Your task to perform on an android device: change the clock display to analog Image 0: 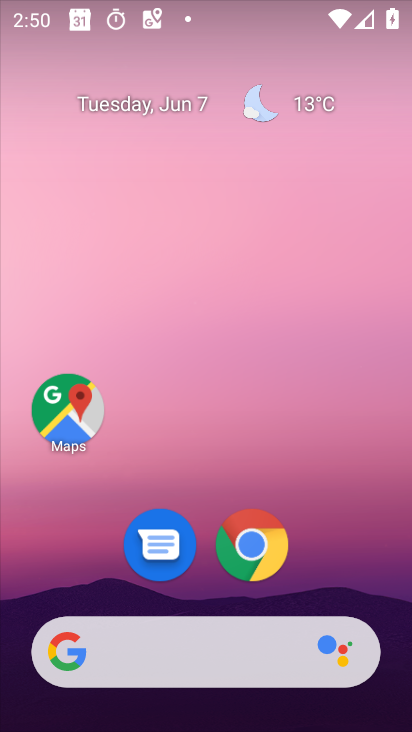
Step 0: drag from (336, 550) to (275, 12)
Your task to perform on an android device: change the clock display to analog Image 1: 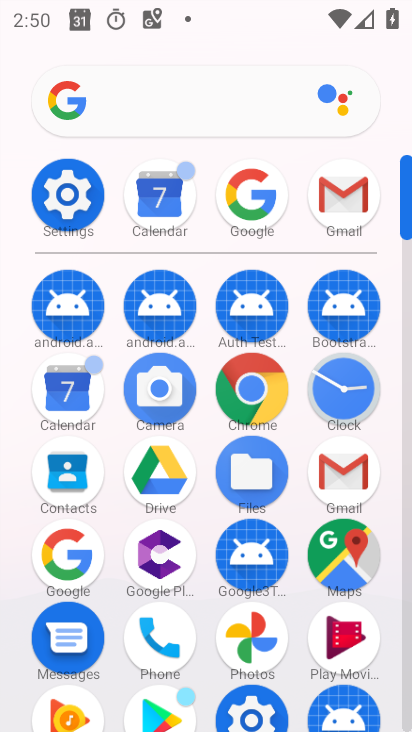
Step 1: click (351, 404)
Your task to perform on an android device: change the clock display to analog Image 2: 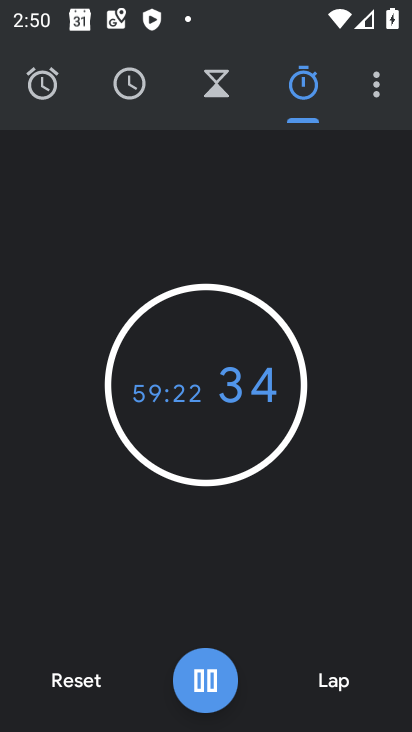
Step 2: click (376, 94)
Your task to perform on an android device: change the clock display to analog Image 3: 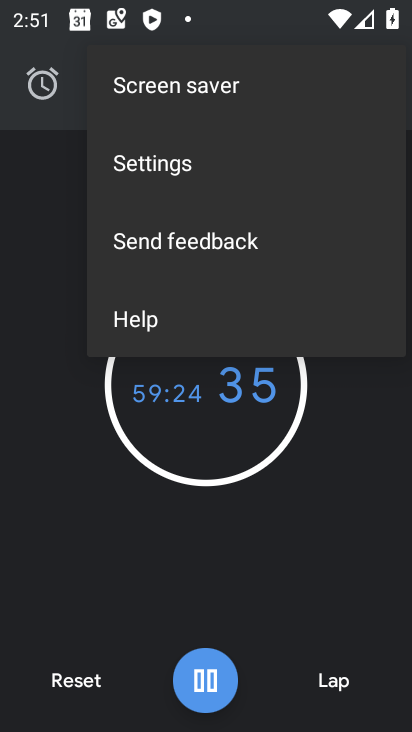
Step 3: click (216, 177)
Your task to perform on an android device: change the clock display to analog Image 4: 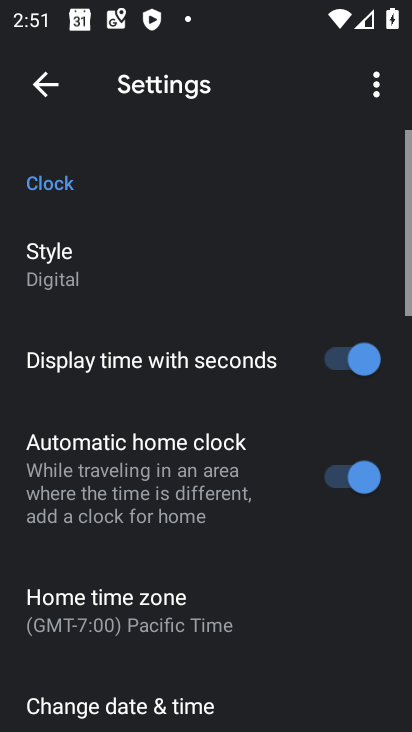
Step 4: click (74, 253)
Your task to perform on an android device: change the clock display to analog Image 5: 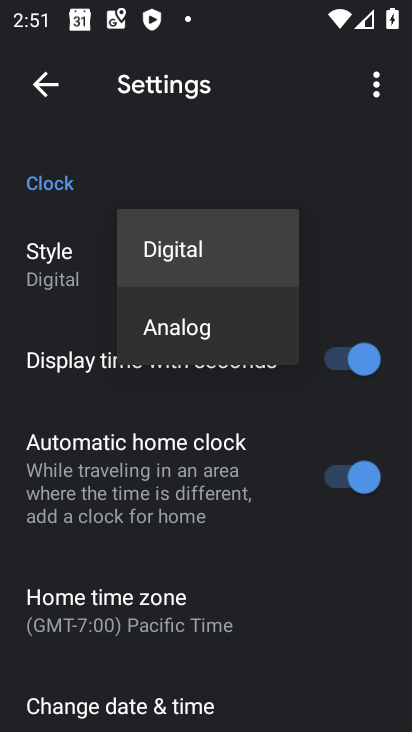
Step 5: click (228, 318)
Your task to perform on an android device: change the clock display to analog Image 6: 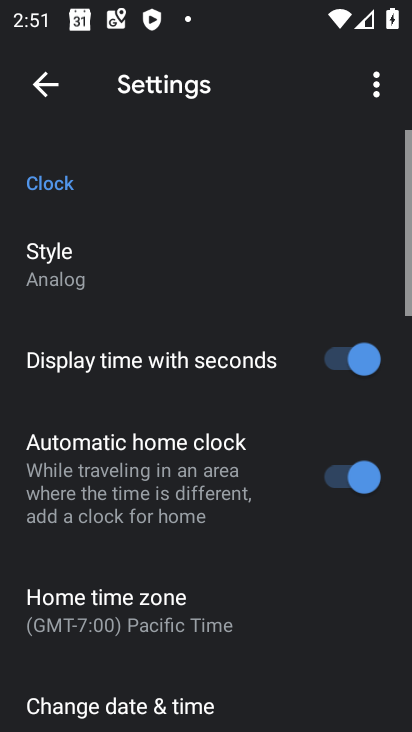
Step 6: task complete